Your task to perform on an android device: Search for energizer triple a on bestbuy.com, select the first entry, add it to the cart, then select checkout. Image 0: 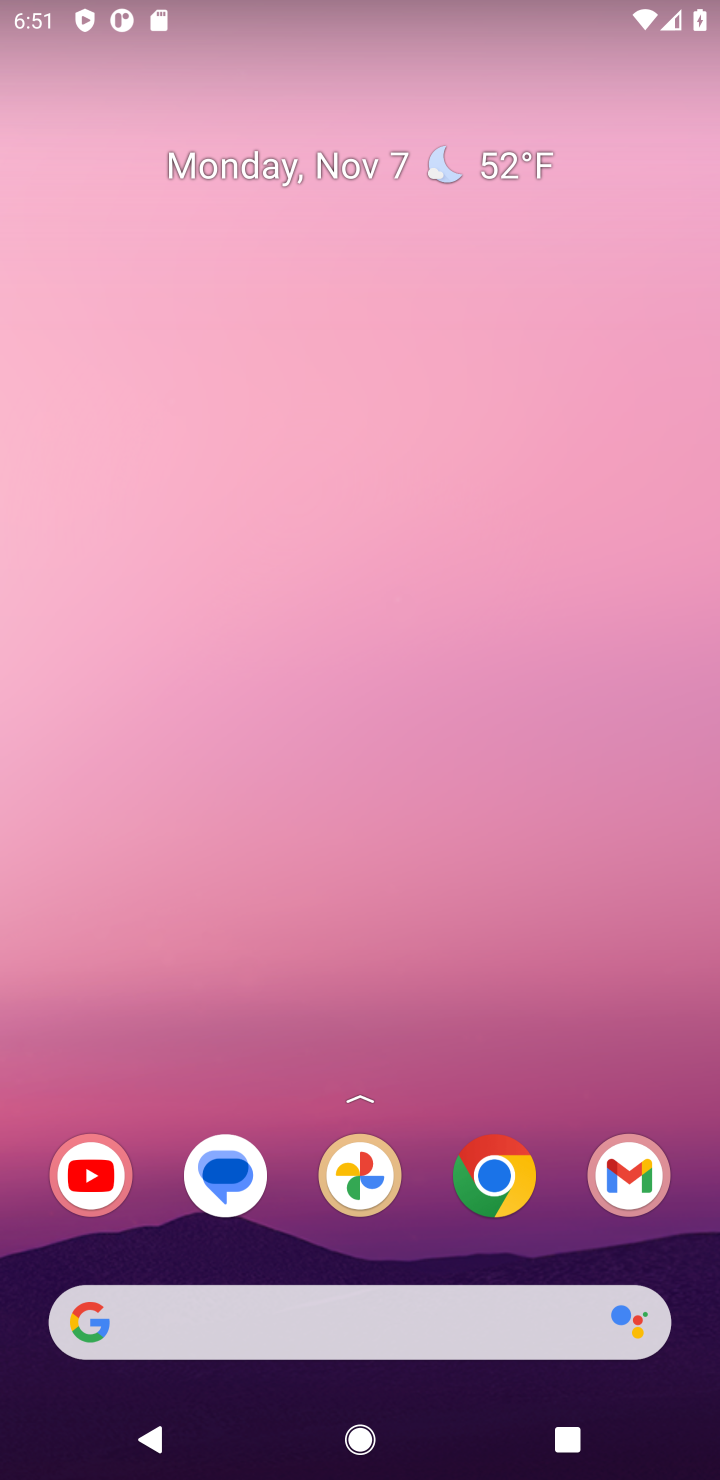
Step 0: press home button
Your task to perform on an android device: Search for energizer triple a on bestbuy.com, select the first entry, add it to the cart, then select checkout. Image 1: 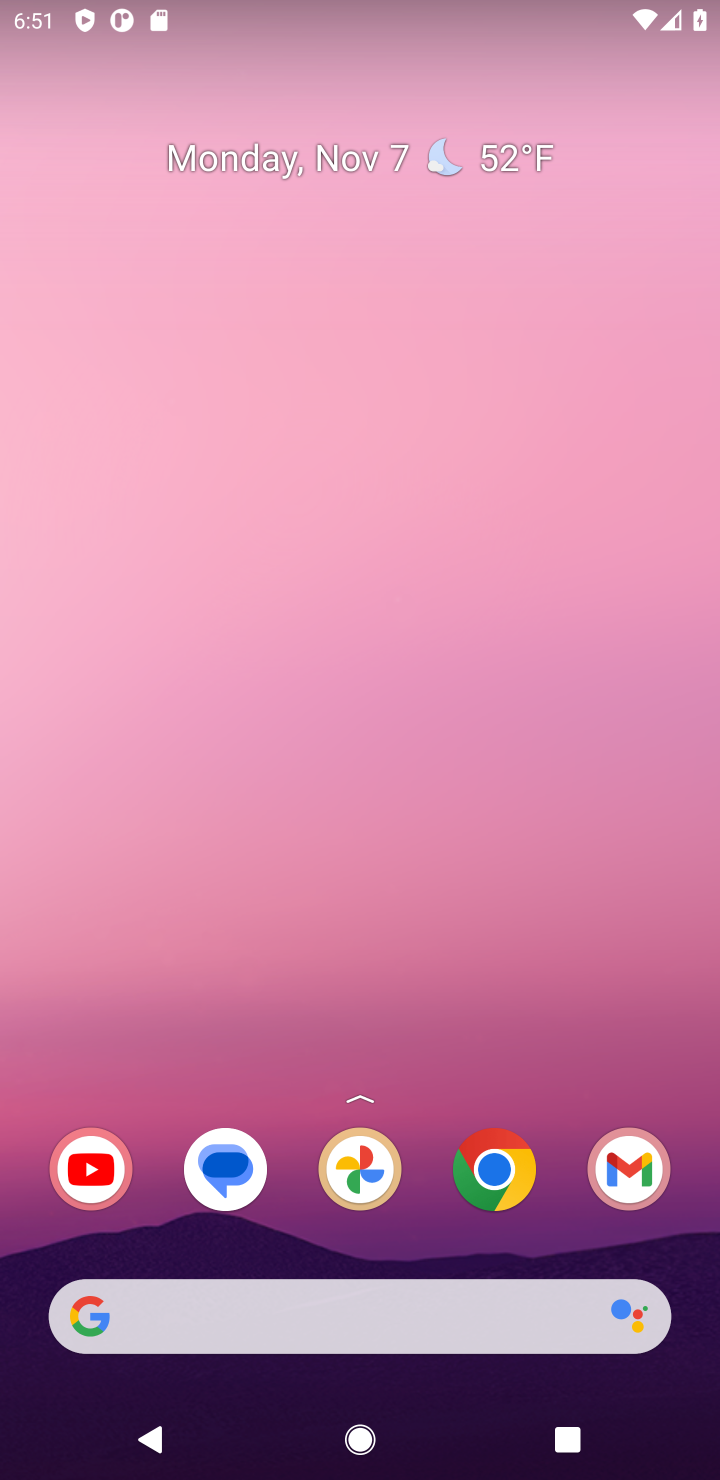
Step 1: click (494, 1168)
Your task to perform on an android device: Search for energizer triple a on bestbuy.com, select the first entry, add it to the cart, then select checkout. Image 2: 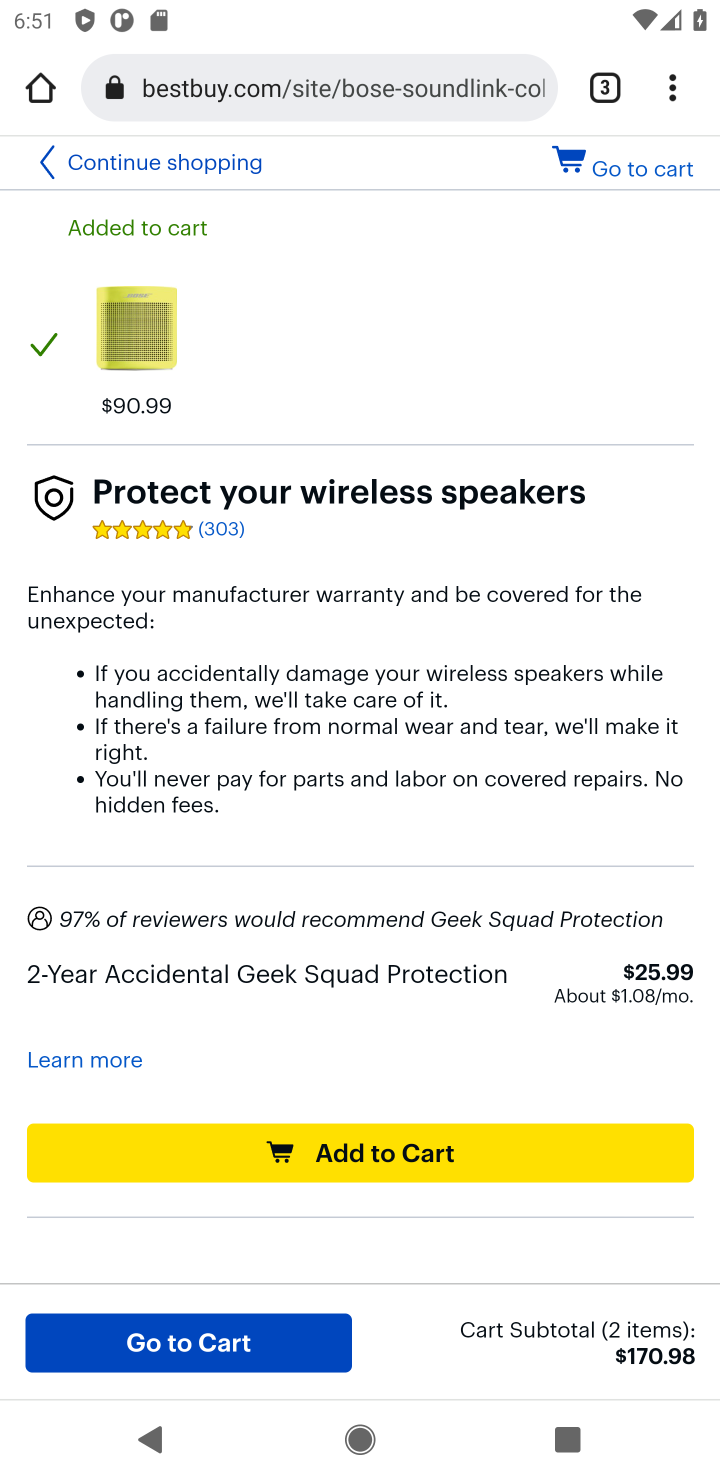
Step 2: click (227, 154)
Your task to perform on an android device: Search for energizer triple a on bestbuy.com, select the first entry, add it to the cart, then select checkout. Image 3: 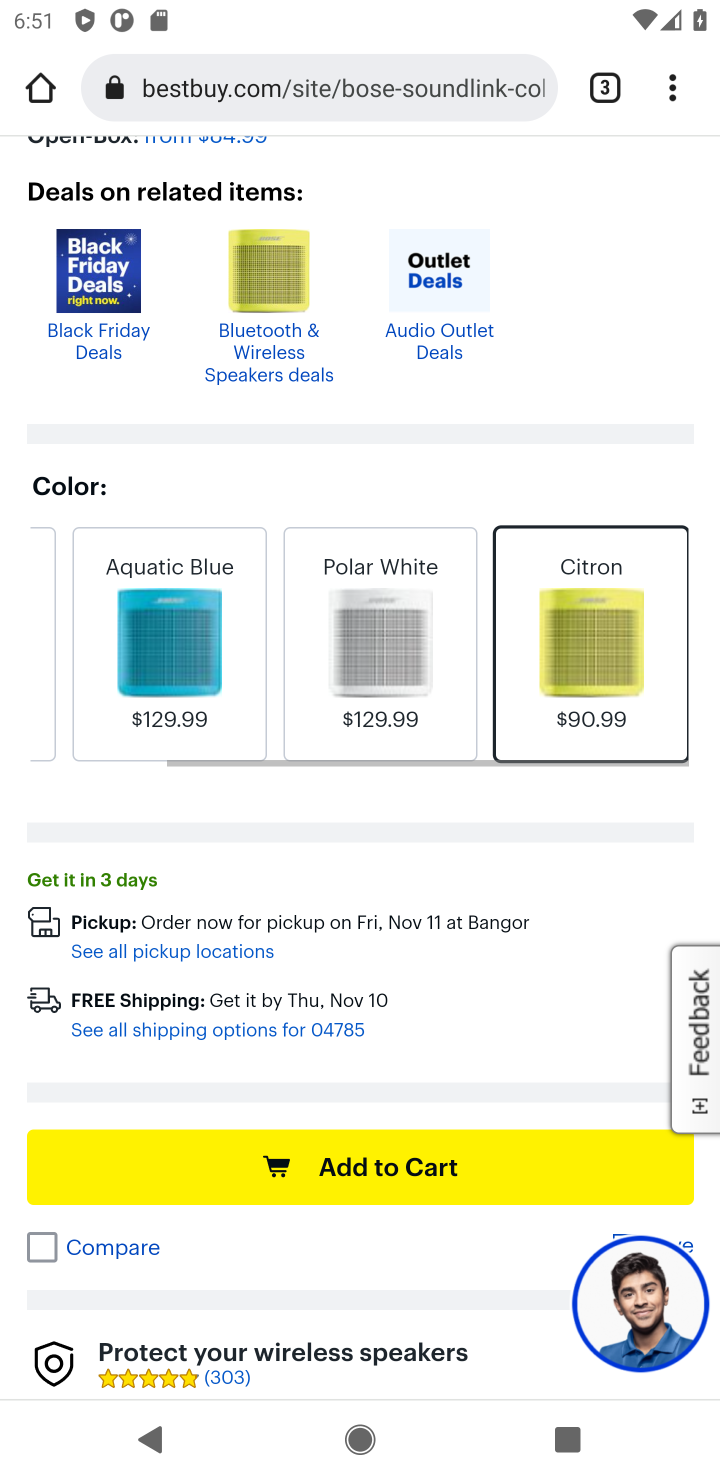
Step 3: drag from (540, 335) to (484, 1470)
Your task to perform on an android device: Search for energizer triple a on bestbuy.com, select the first entry, add it to the cart, then select checkout. Image 4: 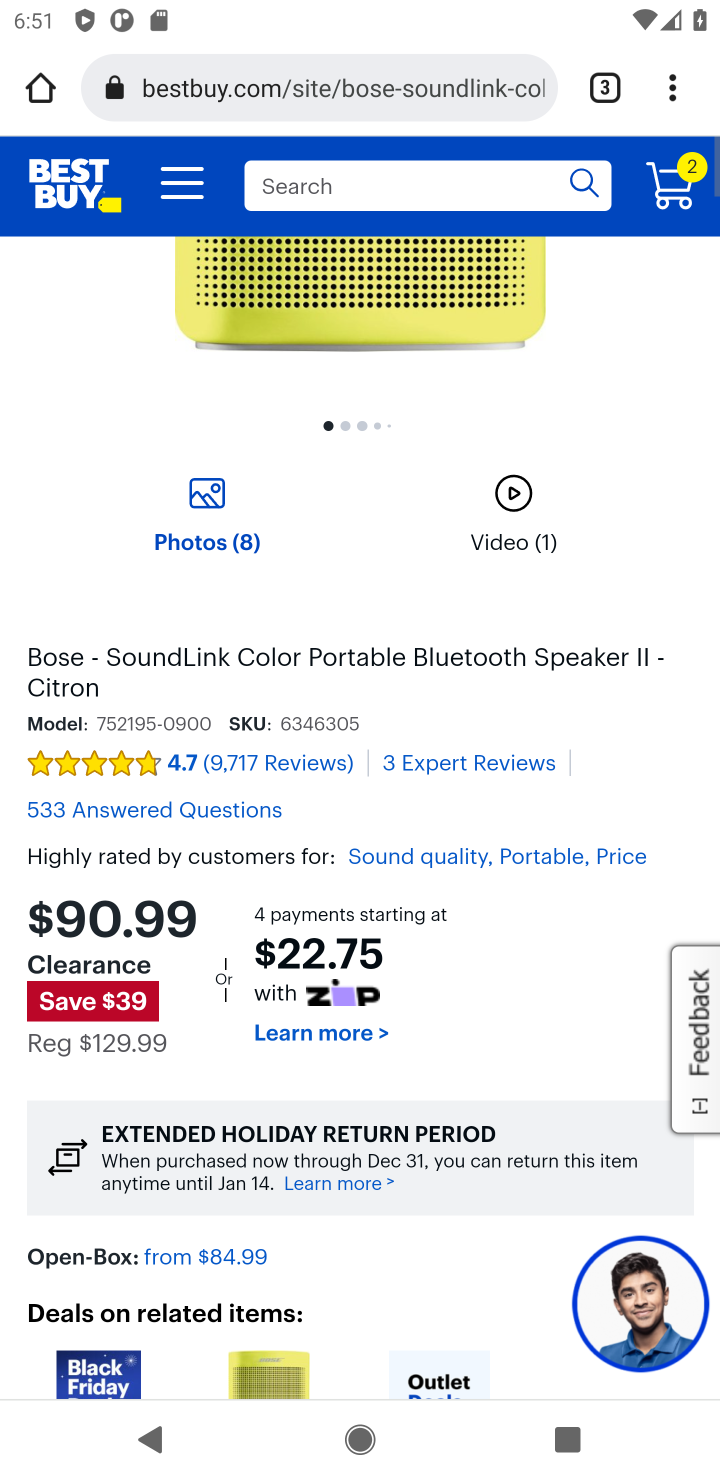
Step 4: click (326, 186)
Your task to perform on an android device: Search for energizer triple a on bestbuy.com, select the first entry, add it to the cart, then select checkout. Image 5: 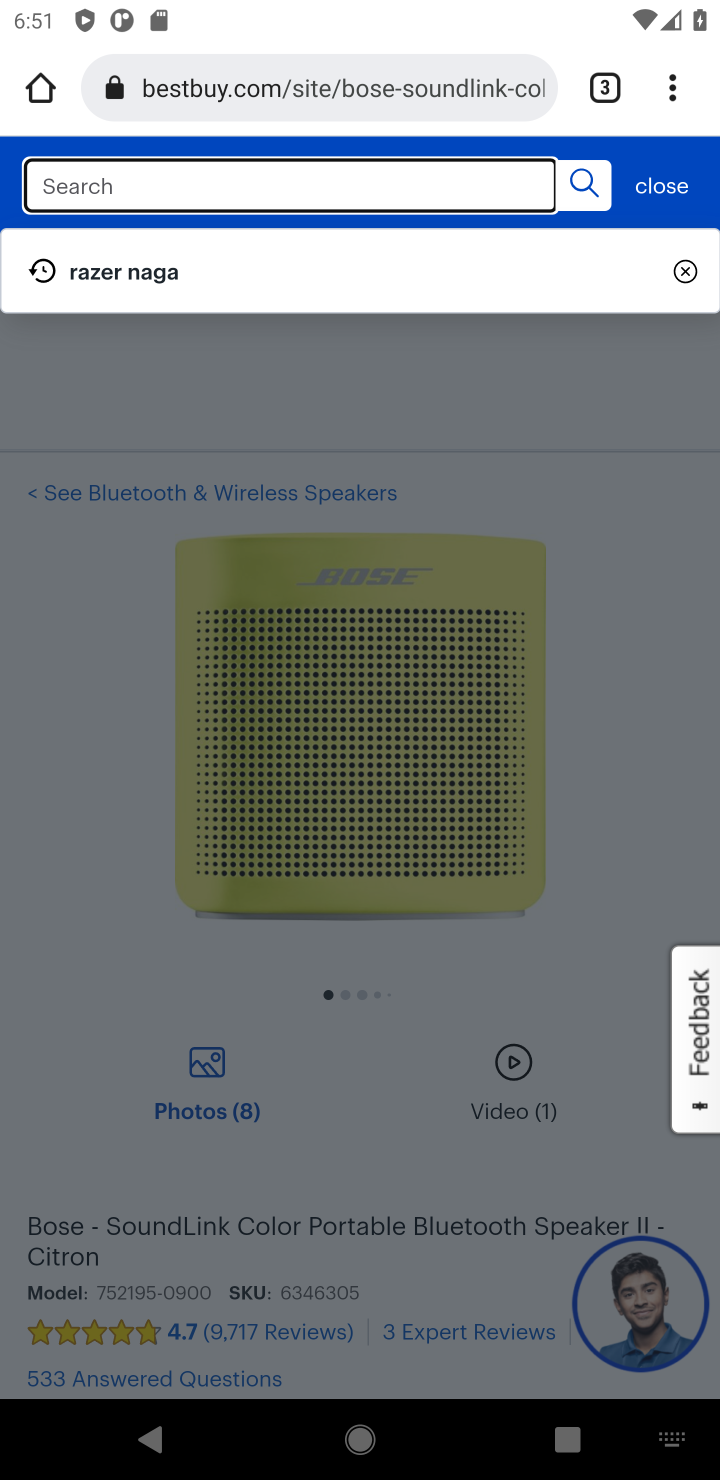
Step 5: type "energizer triple"
Your task to perform on an android device: Search for energizer triple a on bestbuy.com, select the first entry, add it to the cart, then select checkout. Image 6: 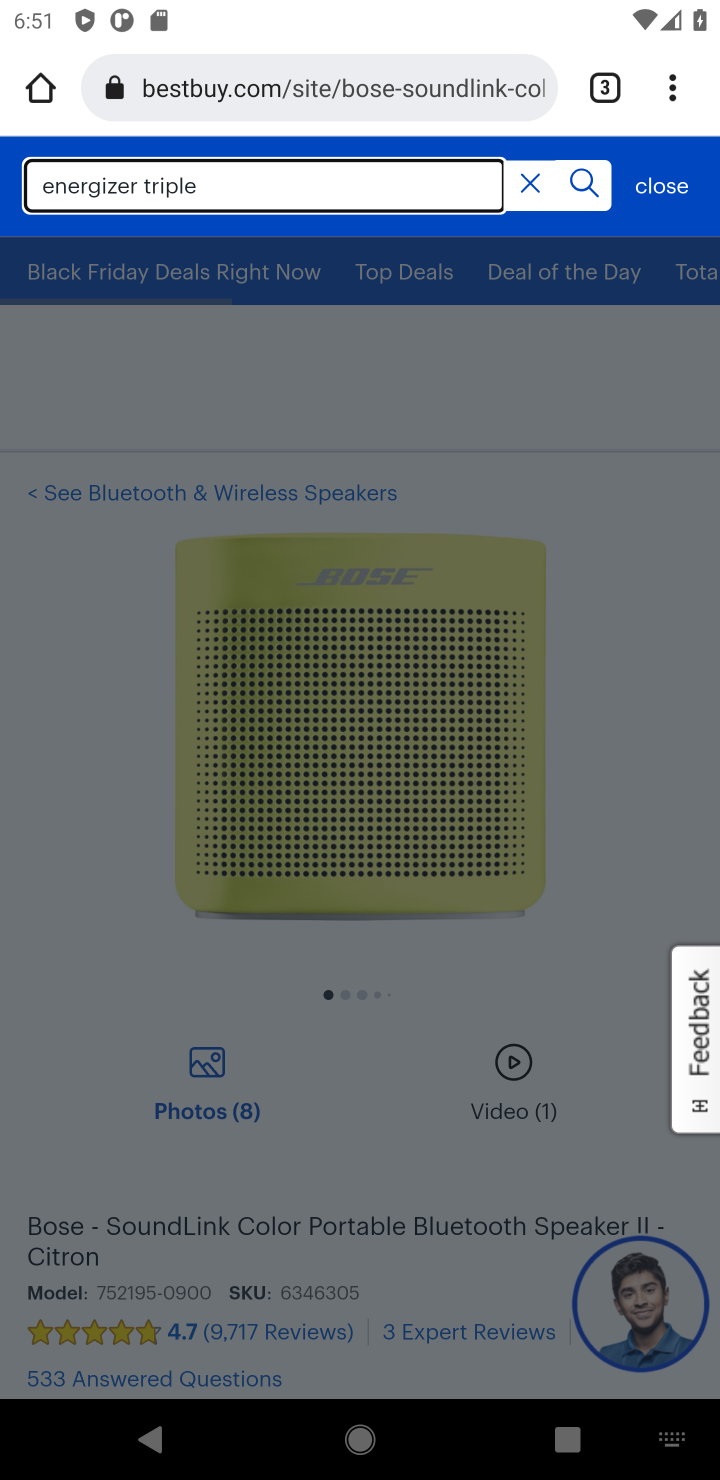
Step 6: click (582, 181)
Your task to perform on an android device: Search for energizer triple a on bestbuy.com, select the first entry, add it to the cart, then select checkout. Image 7: 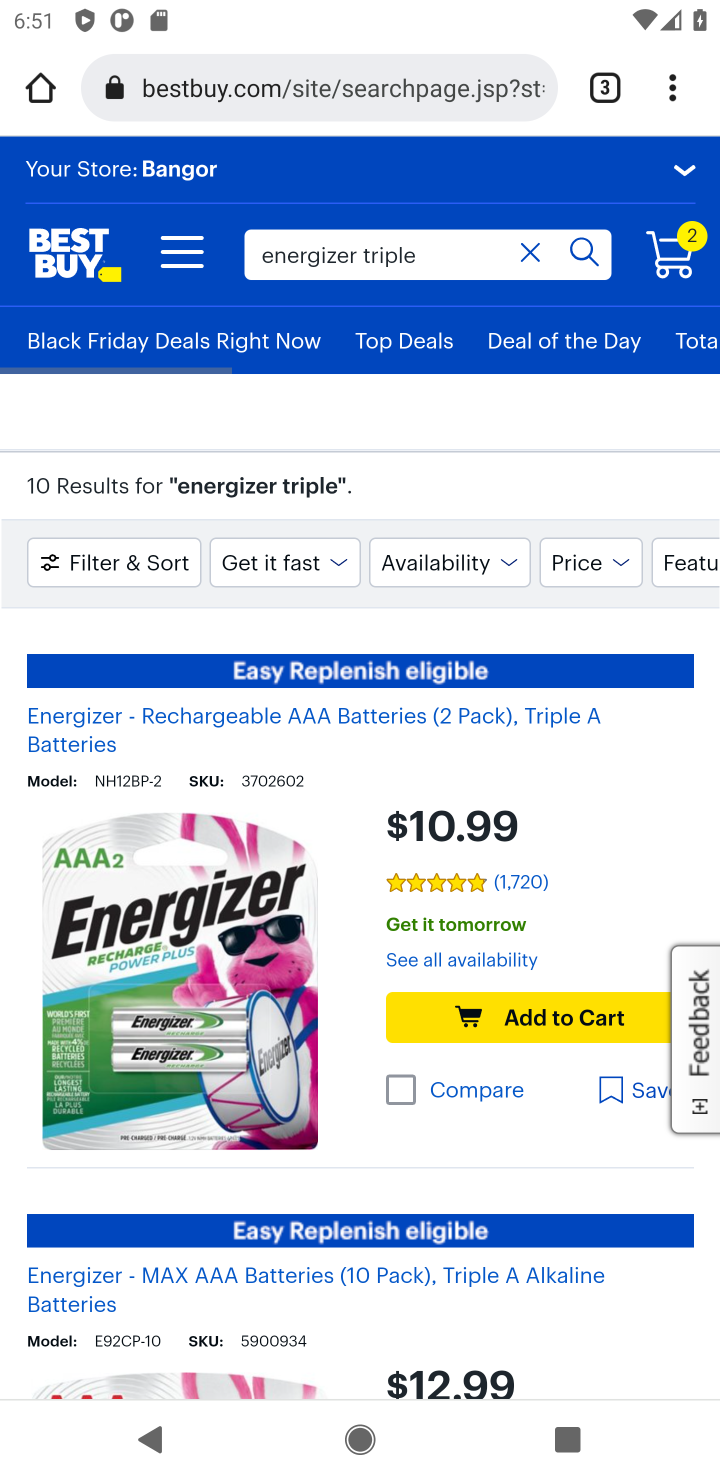
Step 7: click (557, 1018)
Your task to perform on an android device: Search for energizer triple a on bestbuy.com, select the first entry, add it to the cart, then select checkout. Image 8: 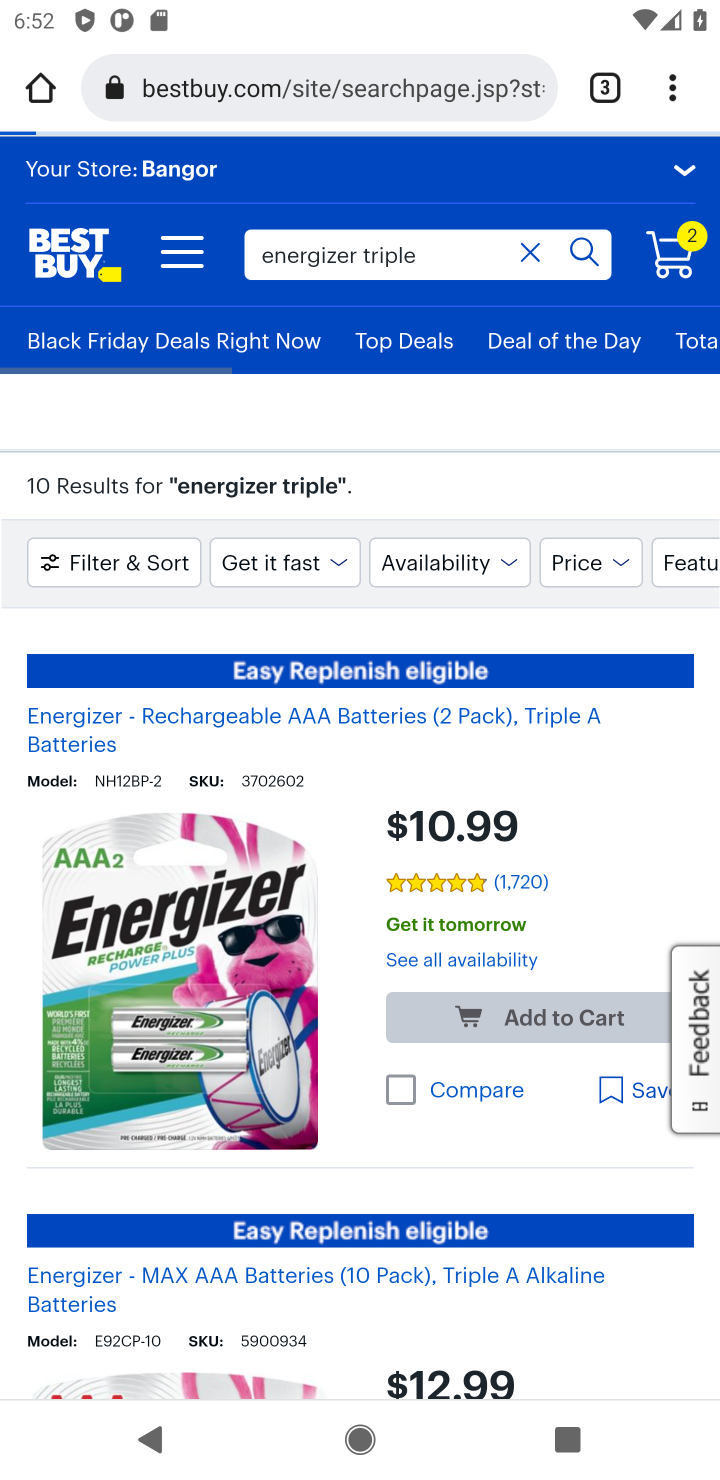
Step 8: click (677, 256)
Your task to perform on an android device: Search for energizer triple a on bestbuy.com, select the first entry, add it to the cart, then select checkout. Image 9: 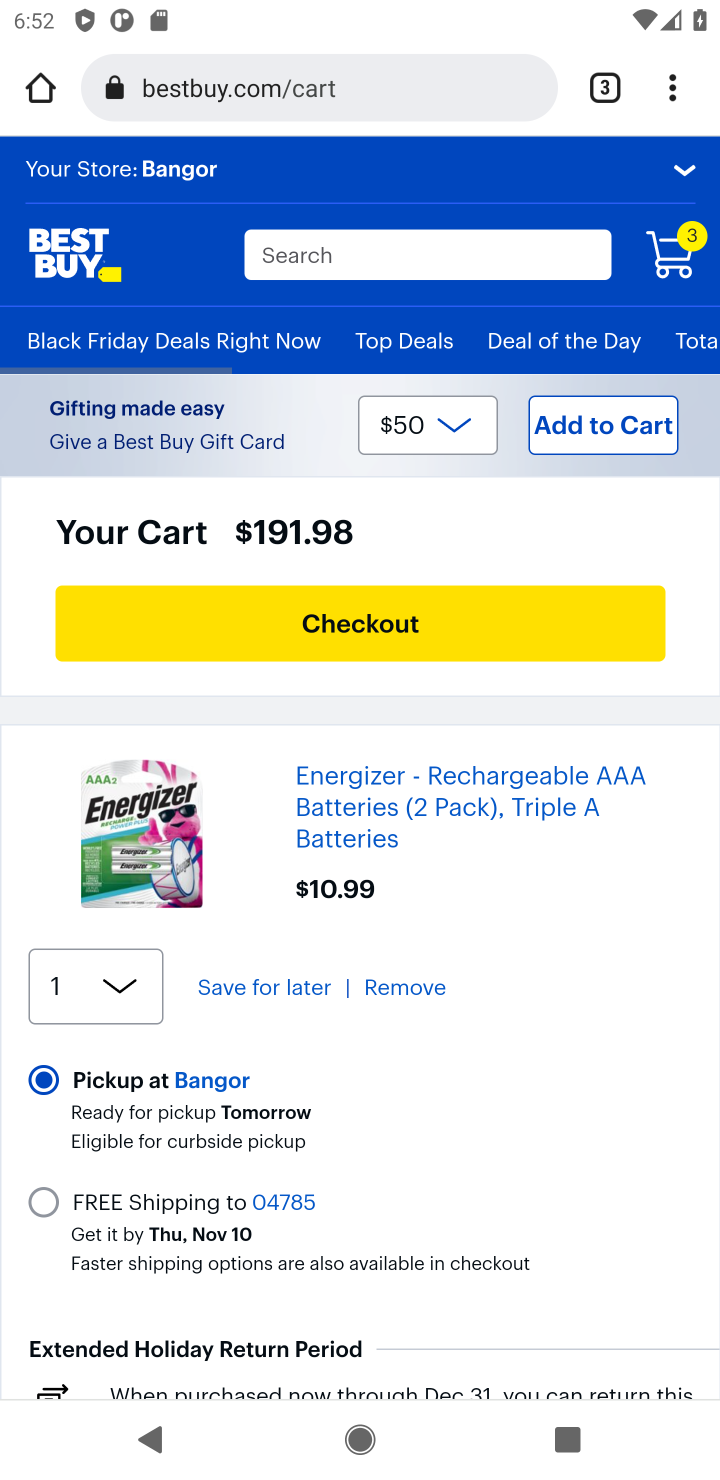
Step 9: click (306, 618)
Your task to perform on an android device: Search for energizer triple a on bestbuy.com, select the first entry, add it to the cart, then select checkout. Image 10: 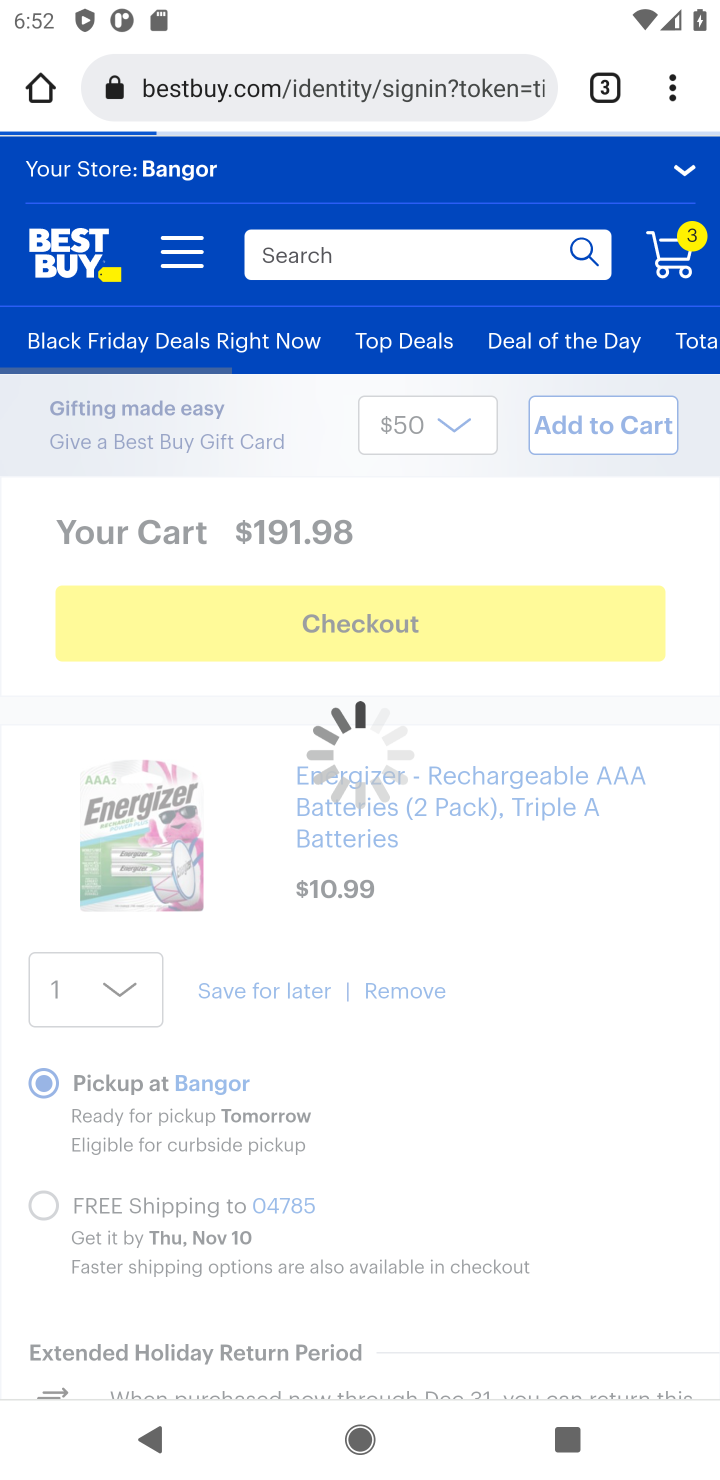
Step 10: task complete